Your task to perform on an android device: Open calendar and show me the third week of next month Image 0: 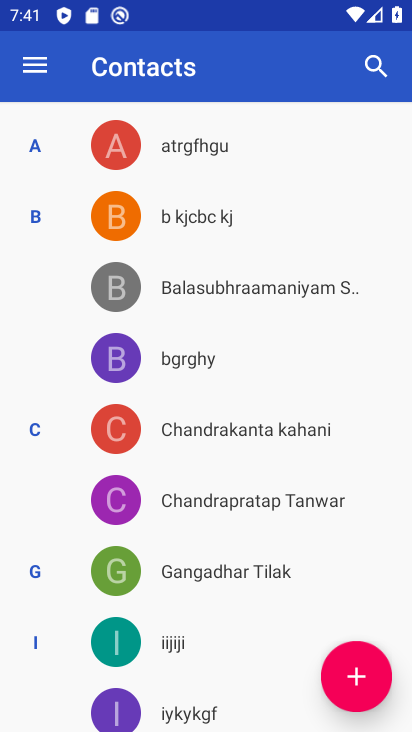
Step 0: press home button
Your task to perform on an android device: Open calendar and show me the third week of next month Image 1: 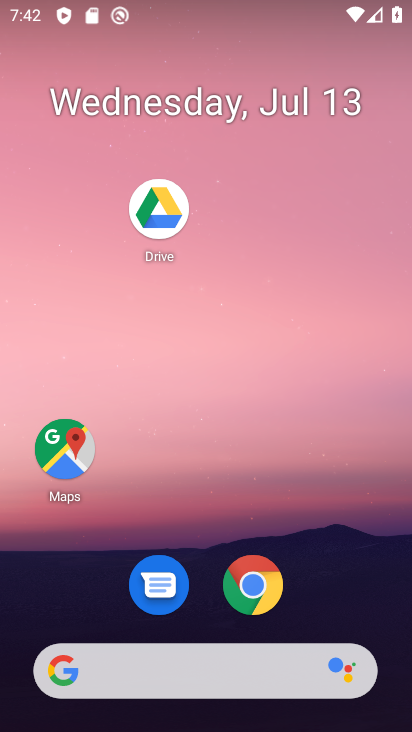
Step 1: drag from (198, 661) to (337, 4)
Your task to perform on an android device: Open calendar and show me the third week of next month Image 2: 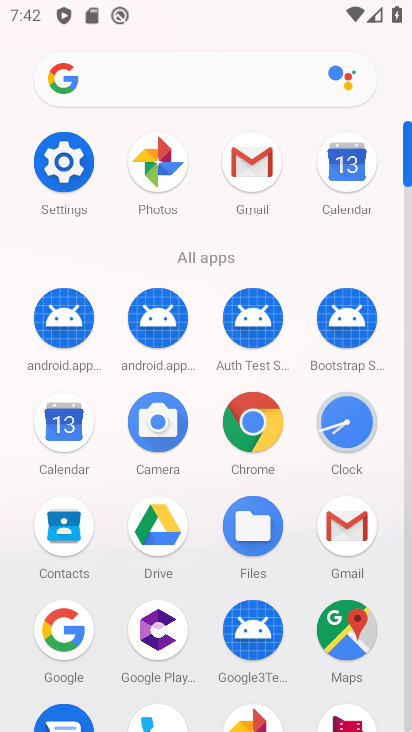
Step 2: click (357, 175)
Your task to perform on an android device: Open calendar and show me the third week of next month Image 3: 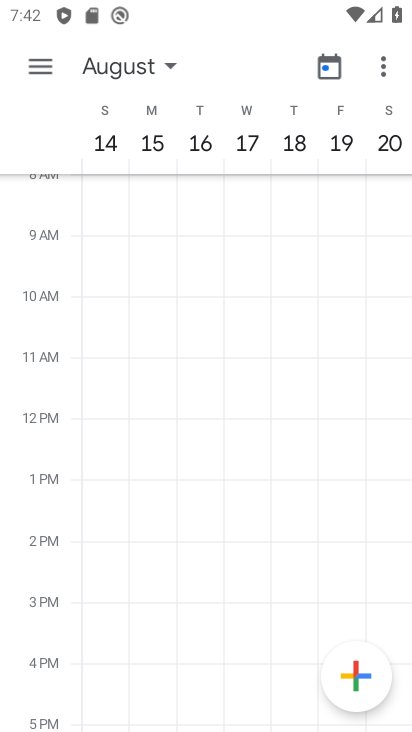
Step 3: click (135, 75)
Your task to perform on an android device: Open calendar and show me the third week of next month Image 4: 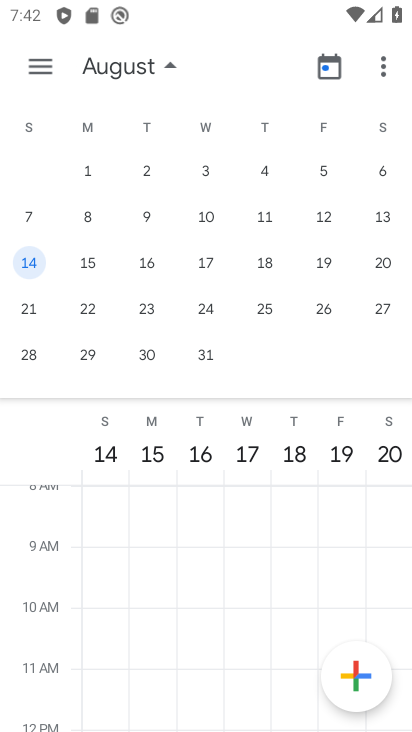
Step 4: task complete